Your task to perform on an android device: Go to sound settings Image 0: 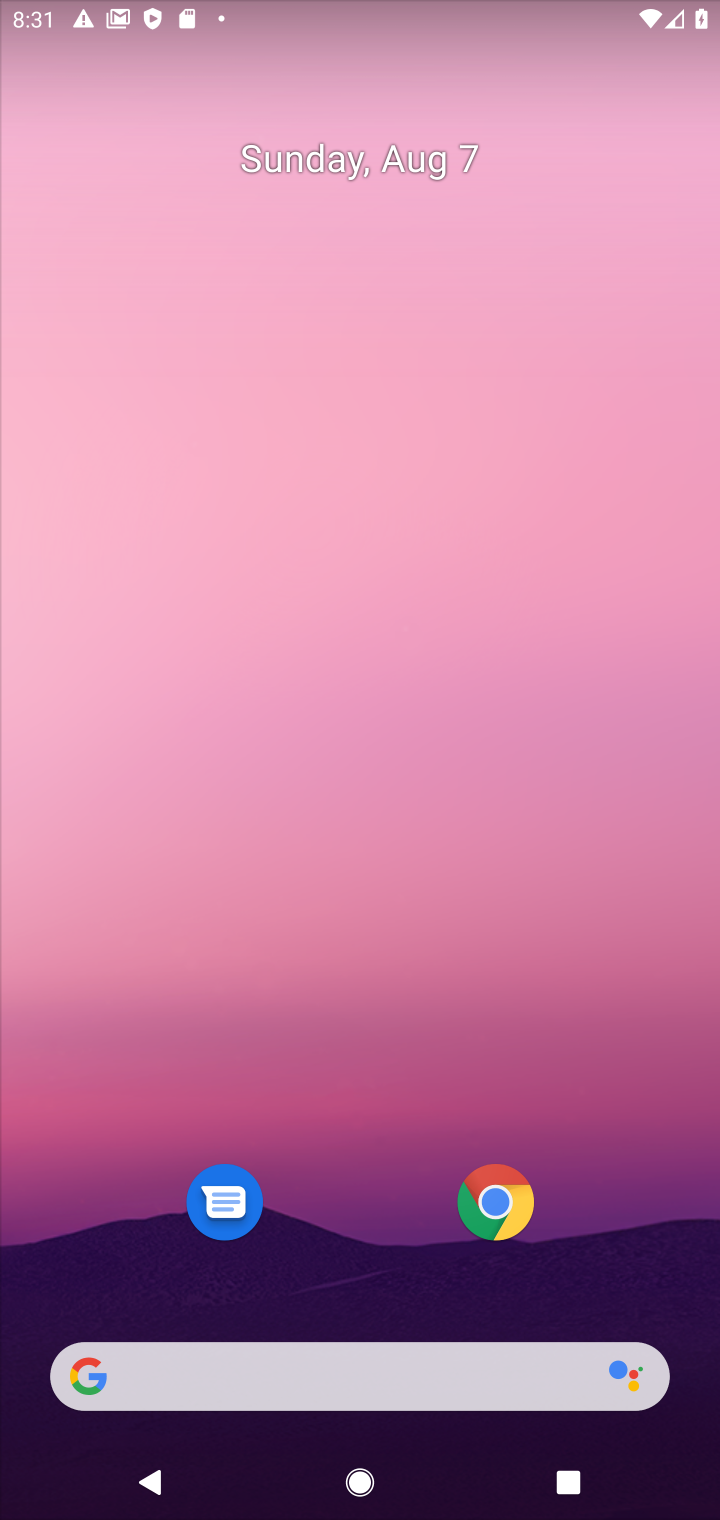
Step 0: drag from (381, 1303) to (439, 379)
Your task to perform on an android device: Go to sound settings Image 1: 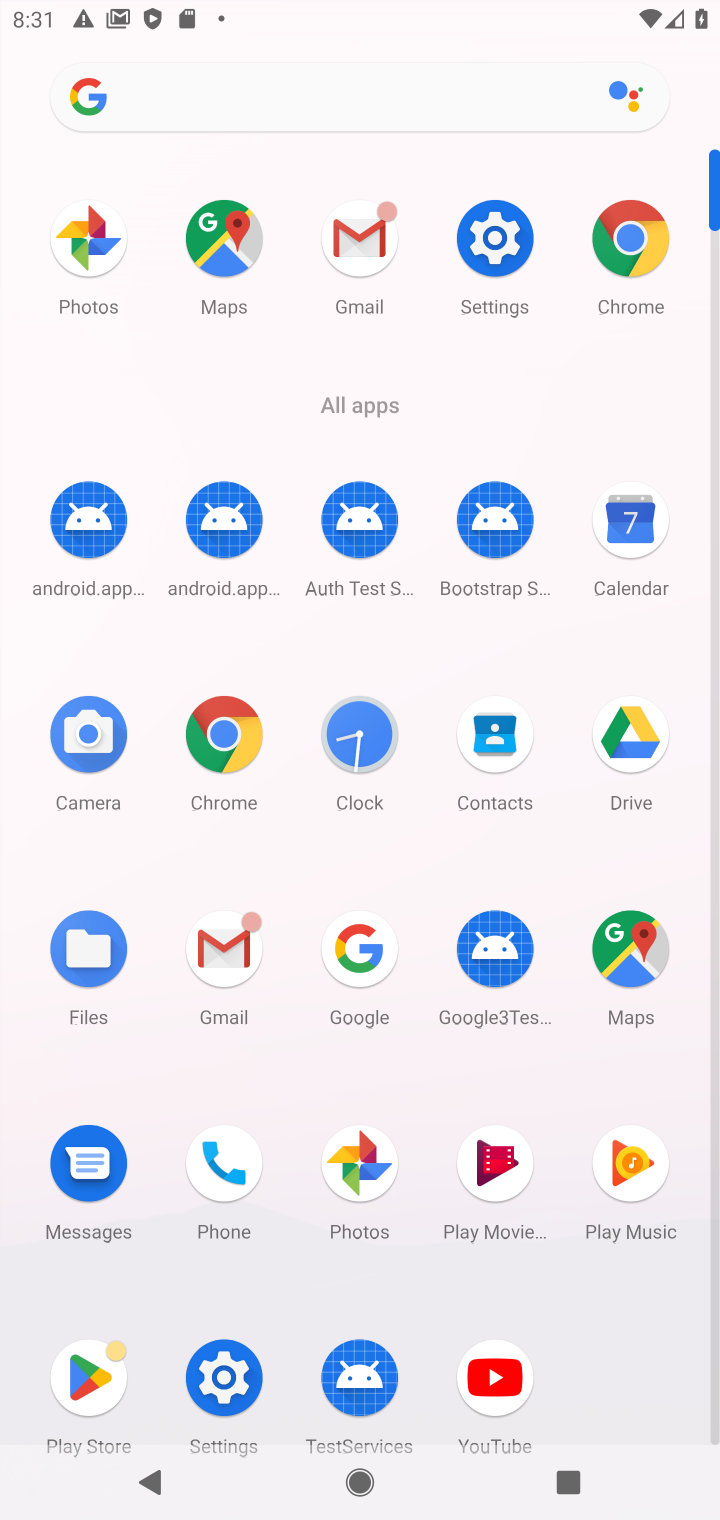
Step 1: click (488, 244)
Your task to perform on an android device: Go to sound settings Image 2: 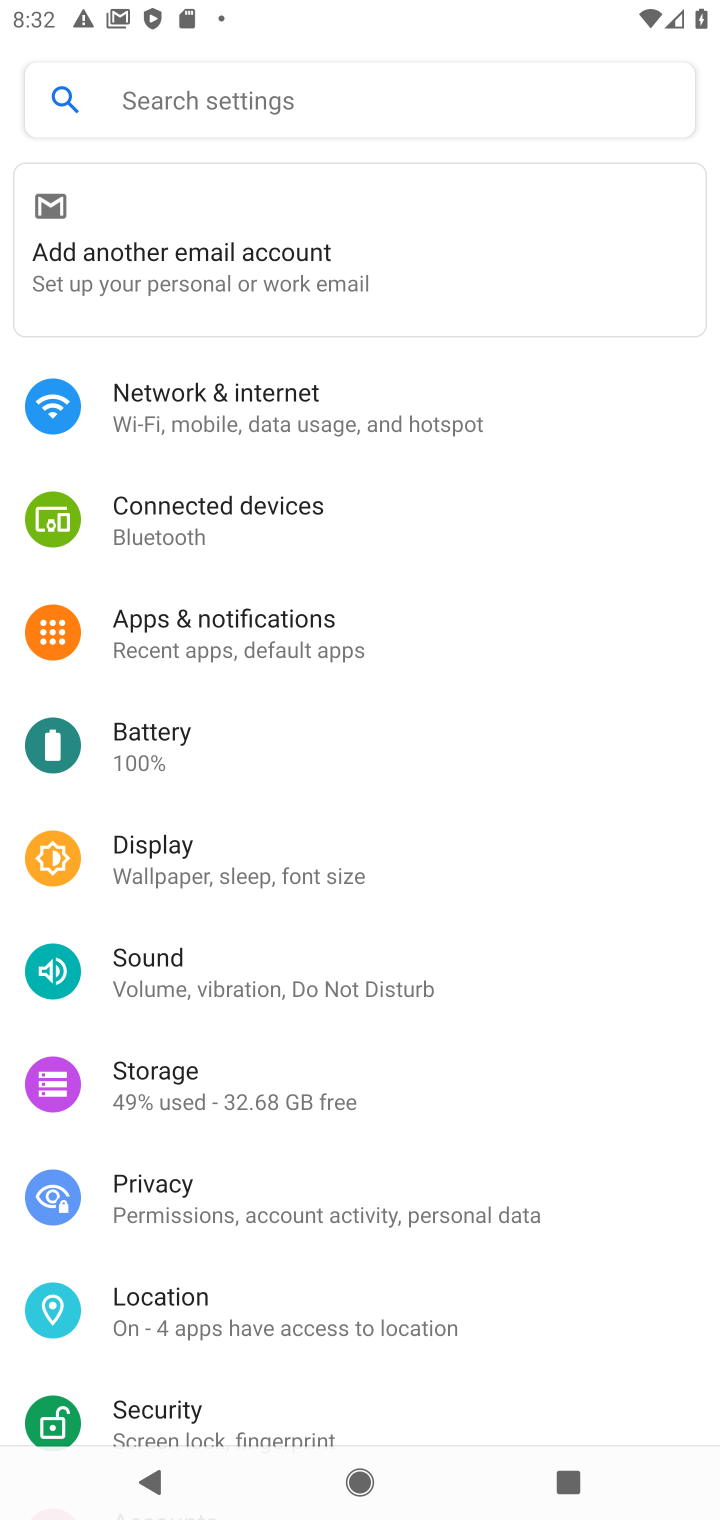
Step 2: click (191, 973)
Your task to perform on an android device: Go to sound settings Image 3: 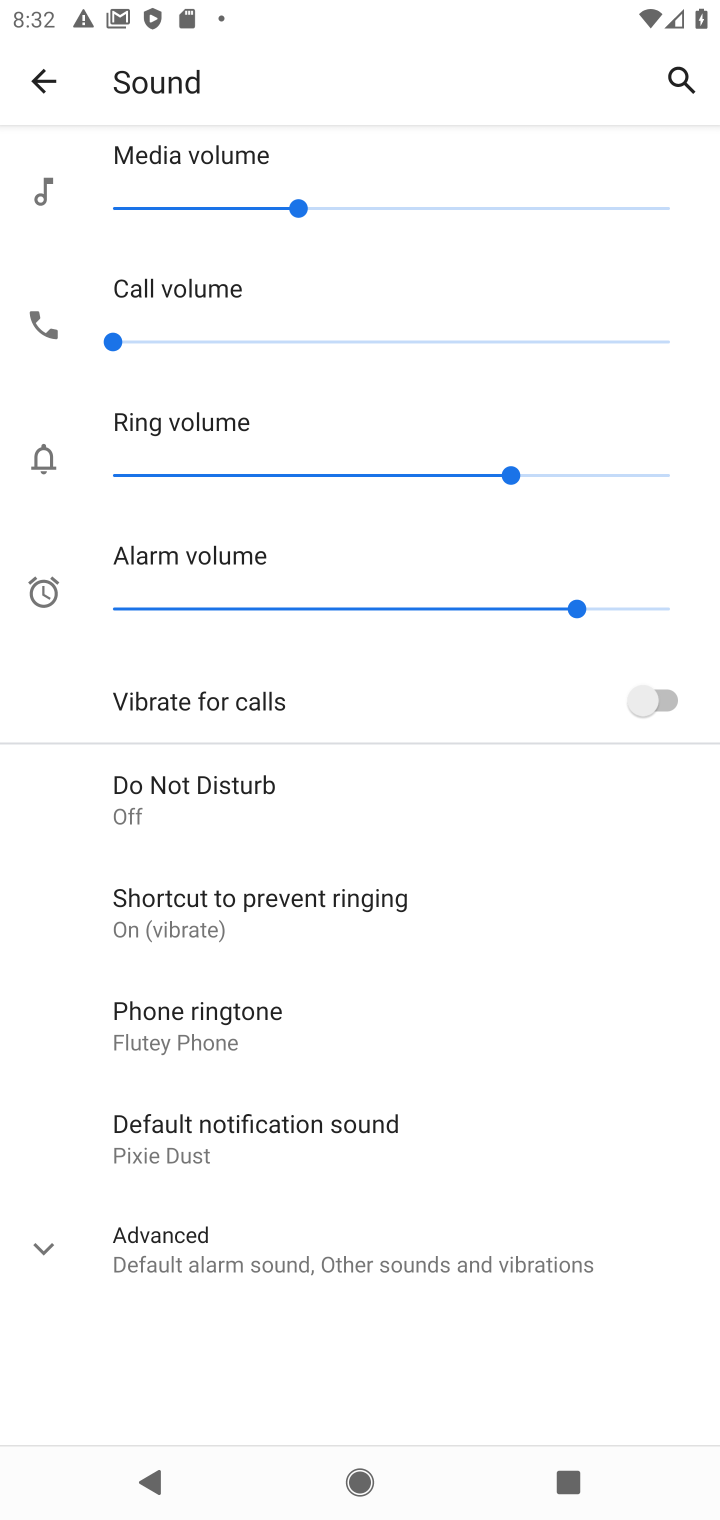
Step 3: task complete